Your task to perform on an android device: Show me productivity apps on the Play Store Image 0: 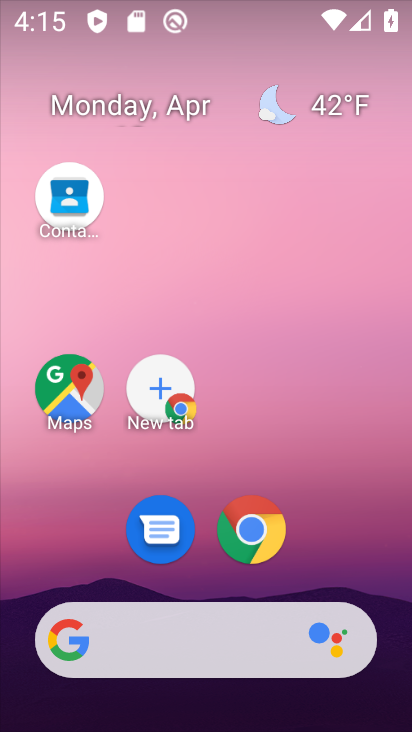
Step 0: drag from (226, 488) to (253, 183)
Your task to perform on an android device: Show me productivity apps on the Play Store Image 1: 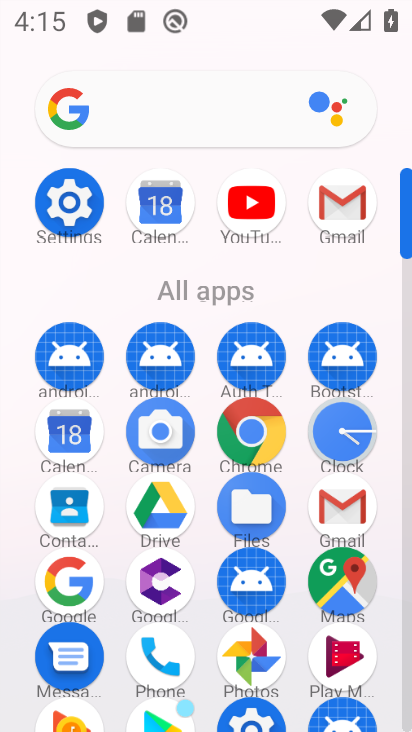
Step 1: drag from (193, 651) to (207, 125)
Your task to perform on an android device: Show me productivity apps on the Play Store Image 2: 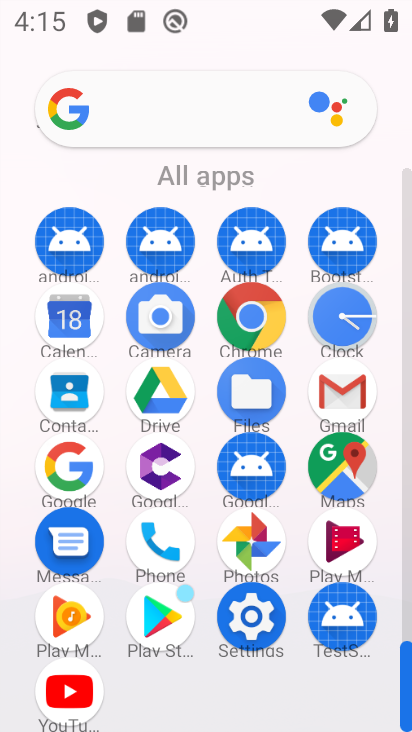
Step 2: click (150, 604)
Your task to perform on an android device: Show me productivity apps on the Play Store Image 3: 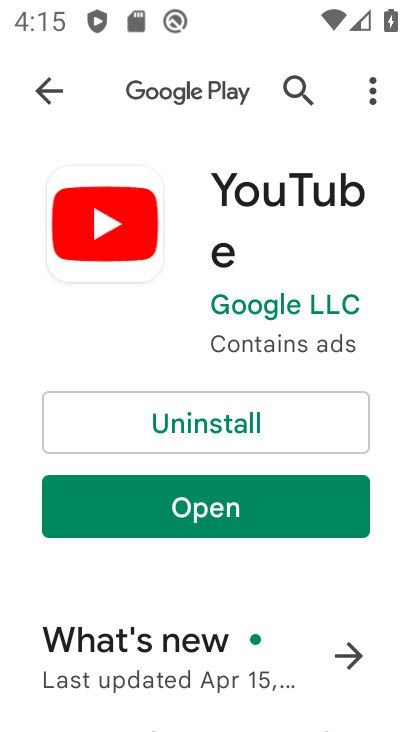
Step 3: click (49, 87)
Your task to perform on an android device: Show me productivity apps on the Play Store Image 4: 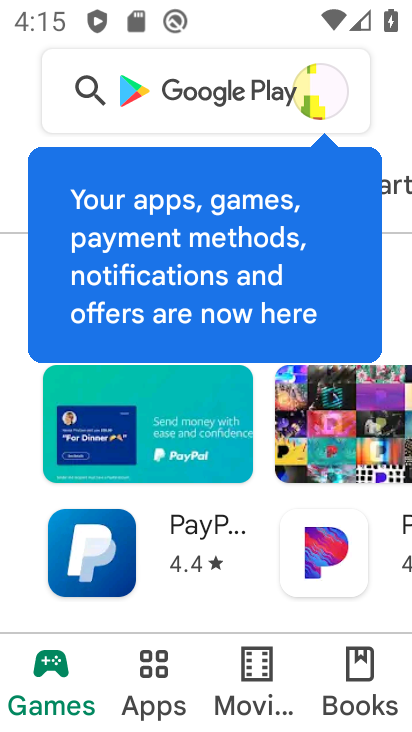
Step 4: click (151, 686)
Your task to perform on an android device: Show me productivity apps on the Play Store Image 5: 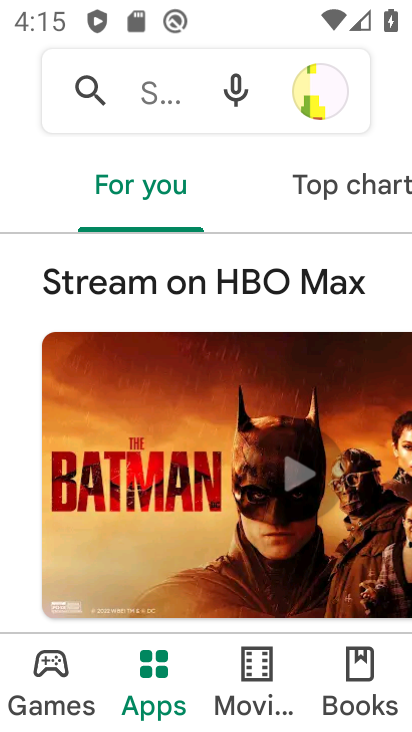
Step 5: task complete